Your task to perform on an android device: Search for amazon basics triple a on walmart.com, select the first entry, and add it to the cart. Image 0: 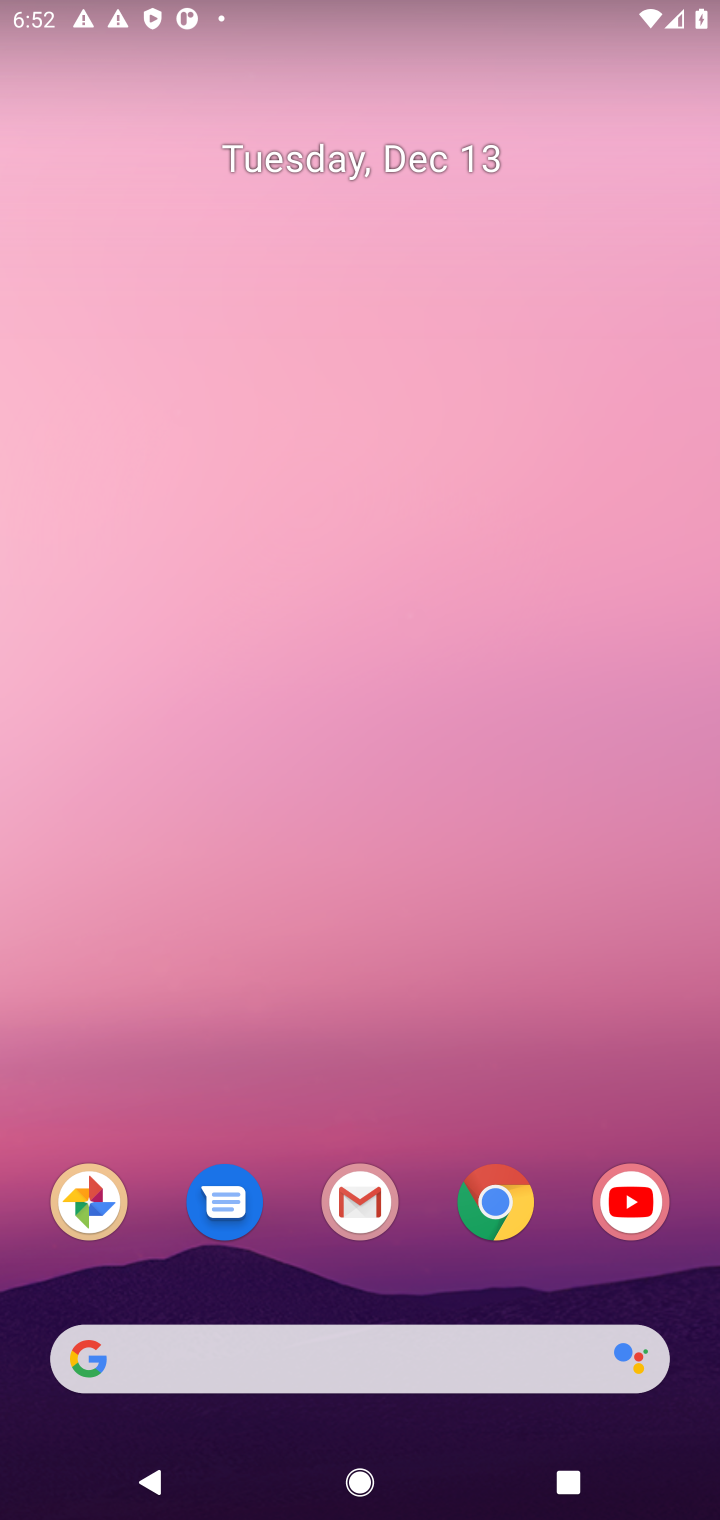
Step 0: click (502, 1209)
Your task to perform on an android device: Search for amazon basics triple a on walmart.com, select the first entry, and add it to the cart. Image 1: 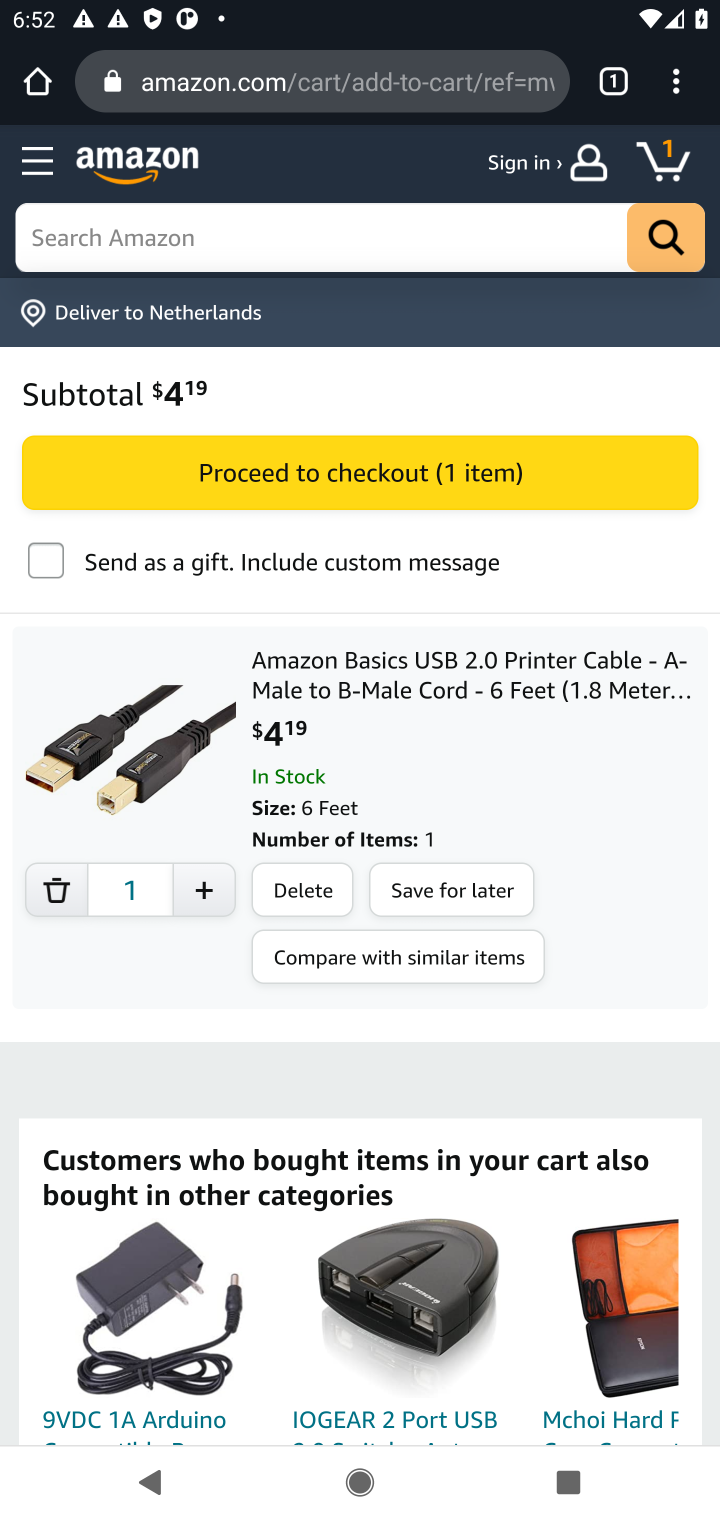
Step 1: click (237, 92)
Your task to perform on an android device: Search for amazon basics triple a on walmart.com, select the first entry, and add it to the cart. Image 2: 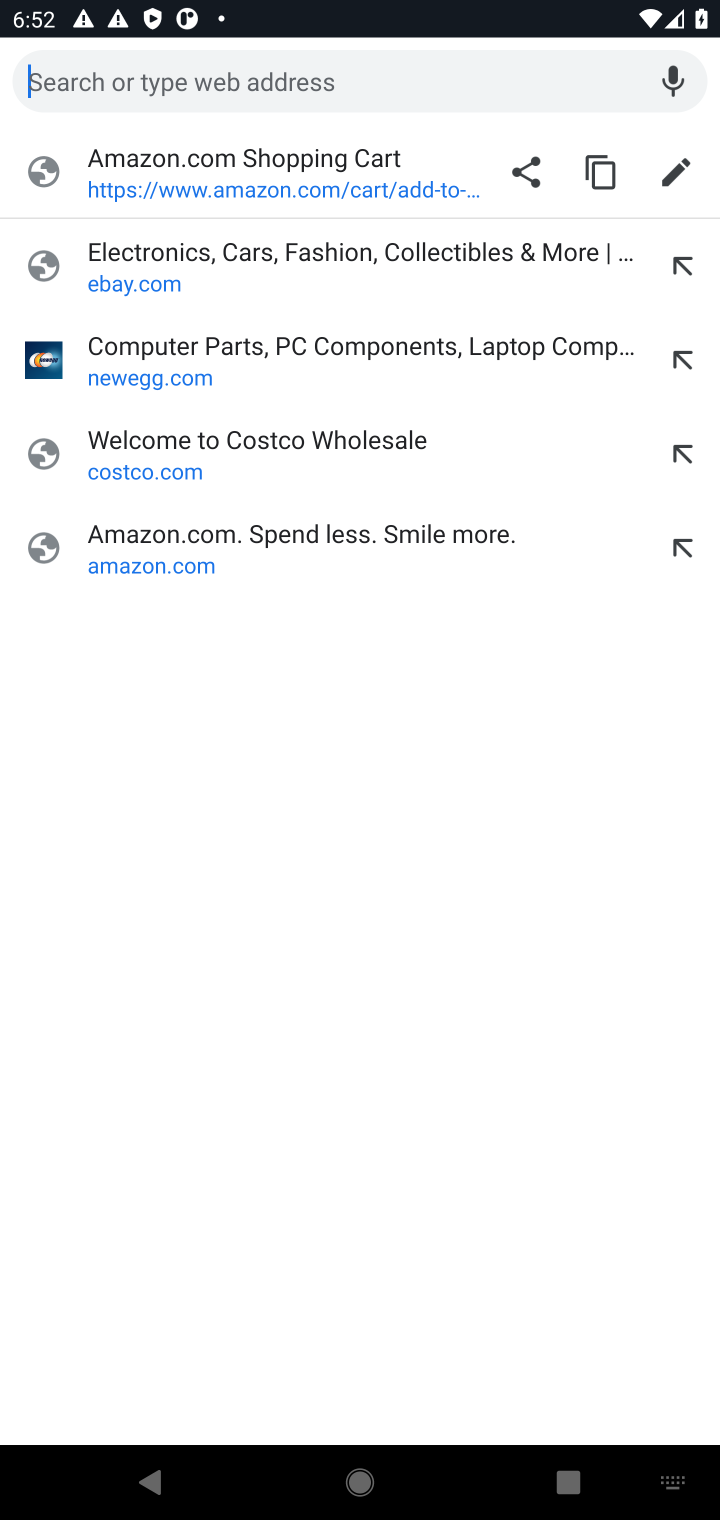
Step 2: type "walmart.com"
Your task to perform on an android device: Search for amazon basics triple a on walmart.com, select the first entry, and add it to the cart. Image 3: 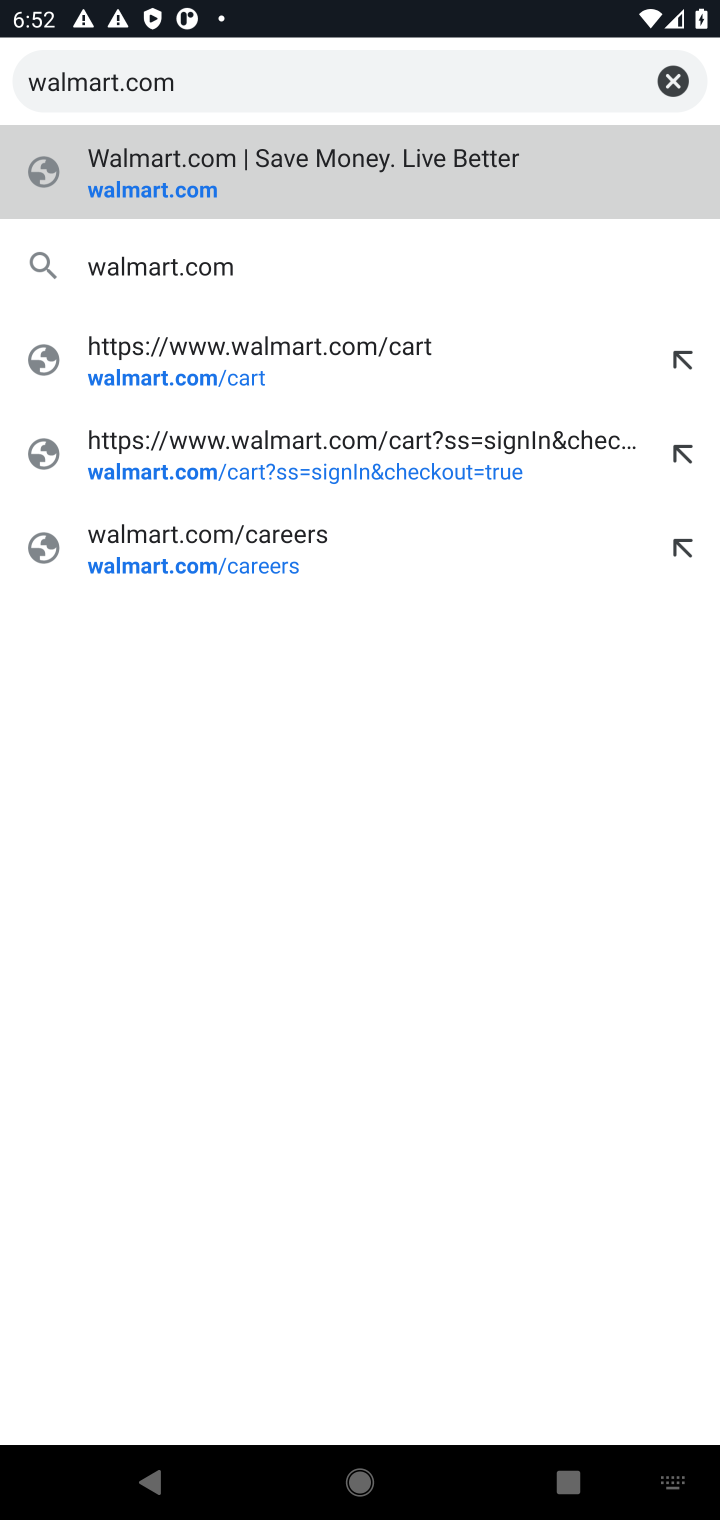
Step 3: click (185, 199)
Your task to perform on an android device: Search for amazon basics triple a on walmart.com, select the first entry, and add it to the cart. Image 4: 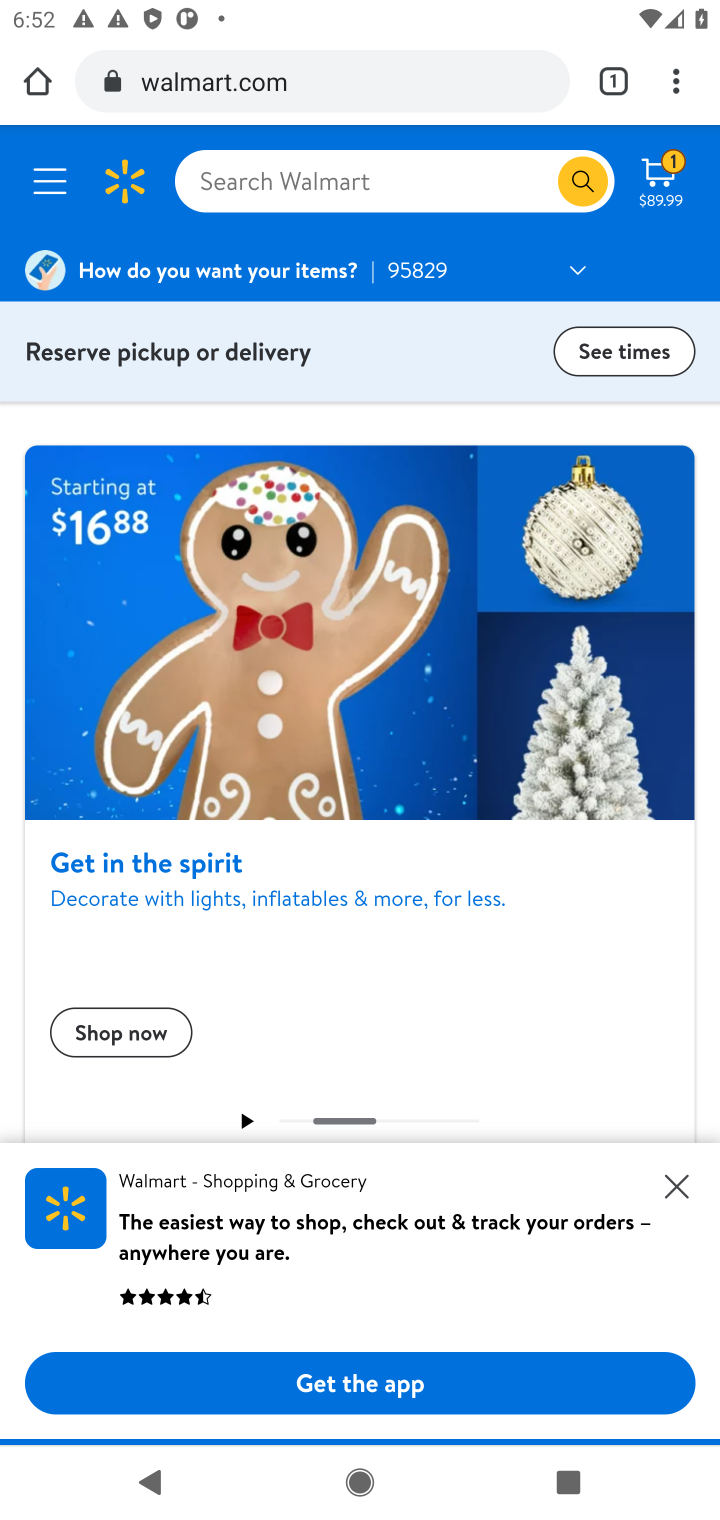
Step 4: click (253, 177)
Your task to perform on an android device: Search for amazon basics triple a on walmart.com, select the first entry, and add it to the cart. Image 5: 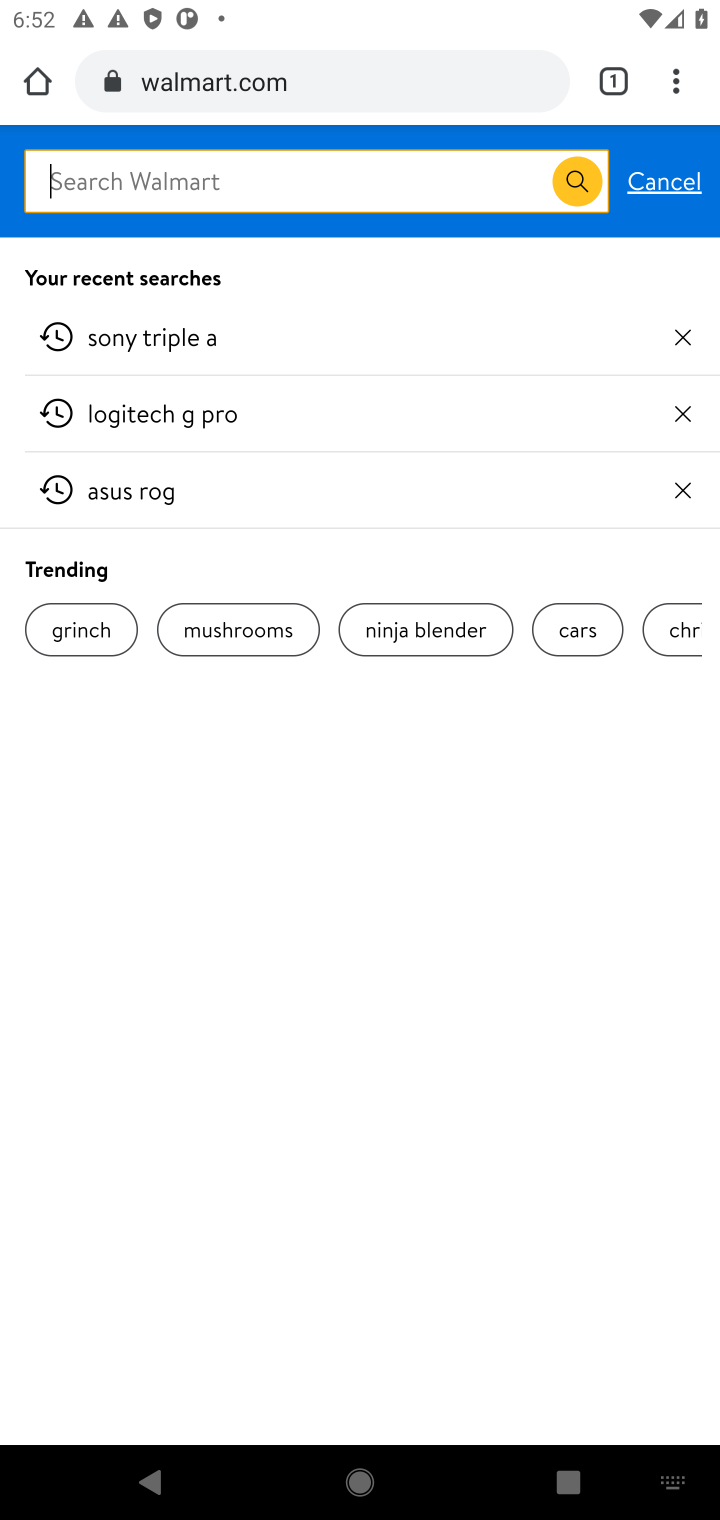
Step 5: type "amazon basics triple a"
Your task to perform on an android device: Search for amazon basics triple a on walmart.com, select the first entry, and add it to the cart. Image 6: 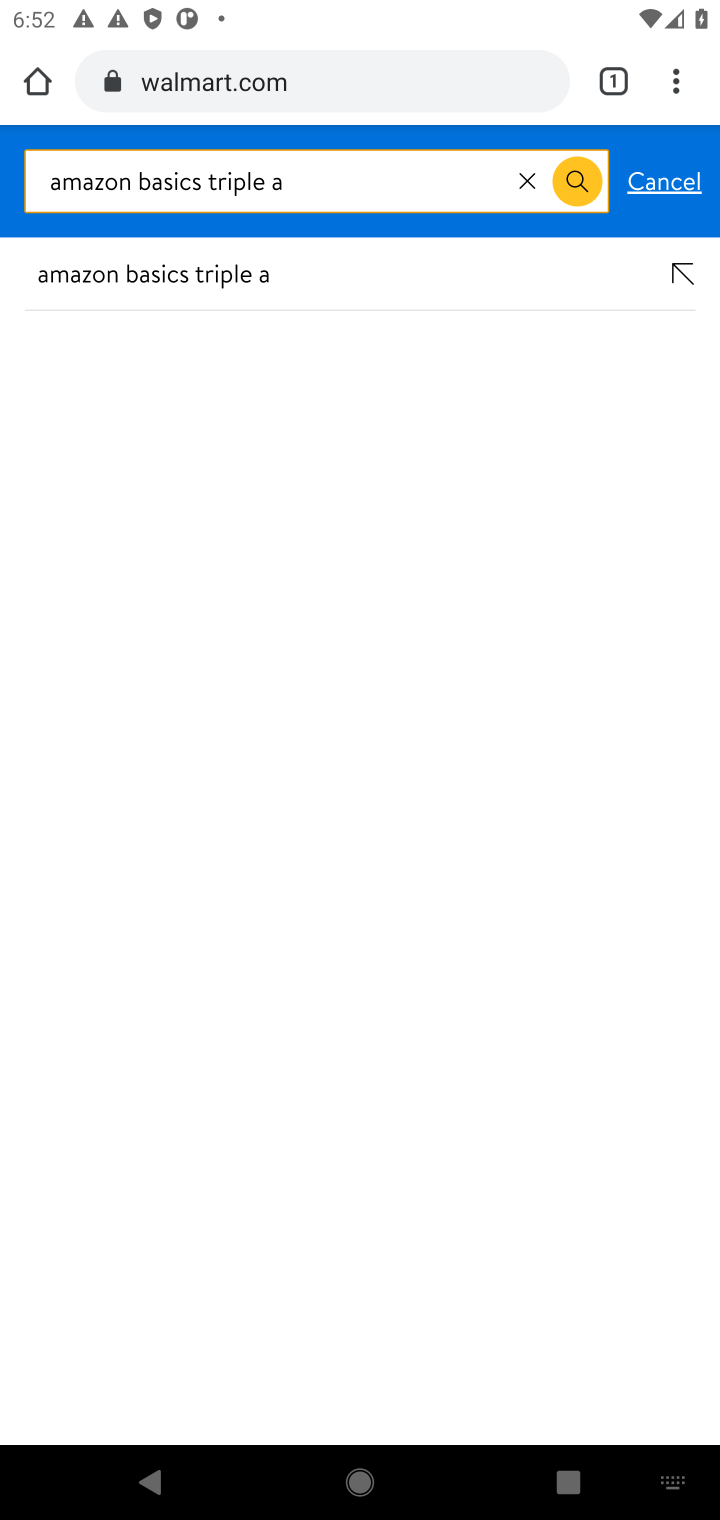
Step 6: click (107, 285)
Your task to perform on an android device: Search for amazon basics triple a on walmart.com, select the first entry, and add it to the cart. Image 7: 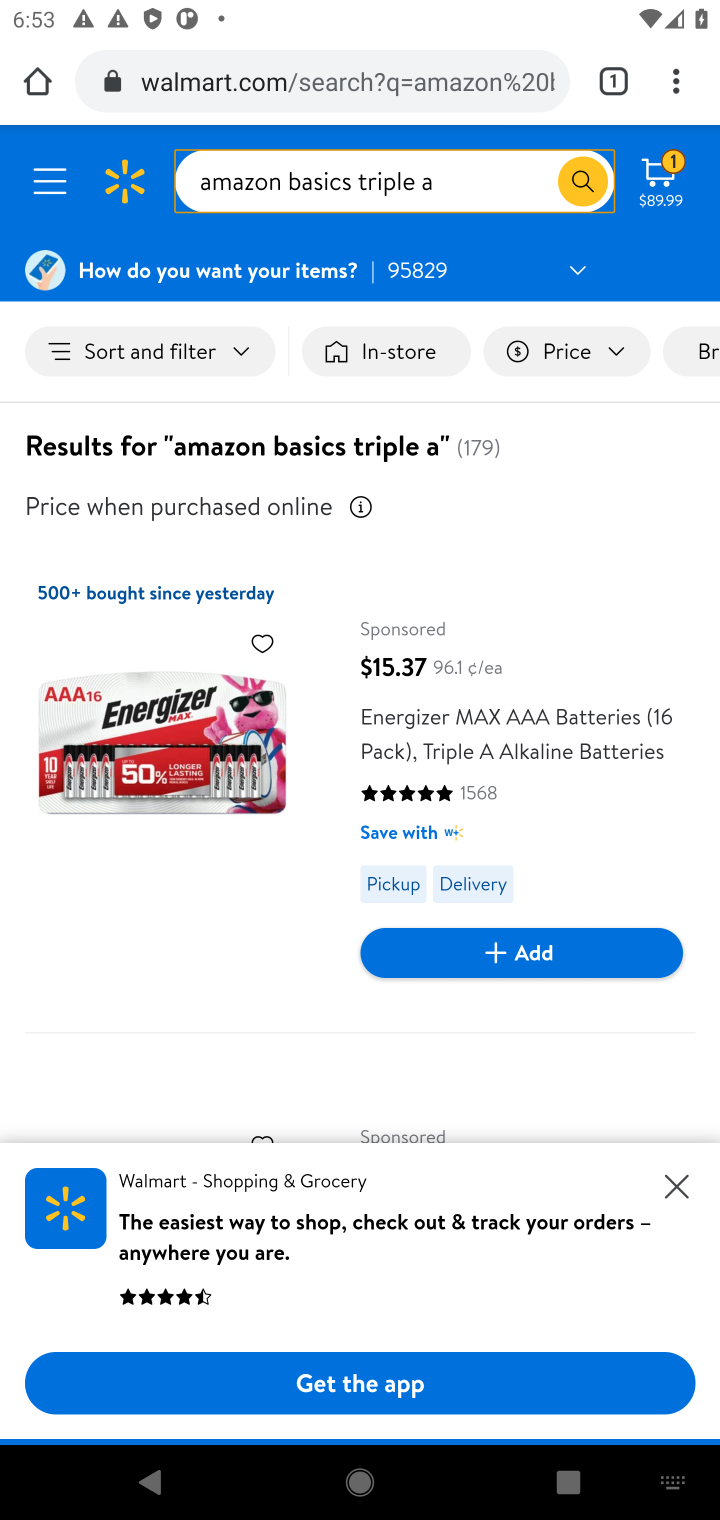
Step 7: task complete